Your task to perform on an android device: Open notification settings Image 0: 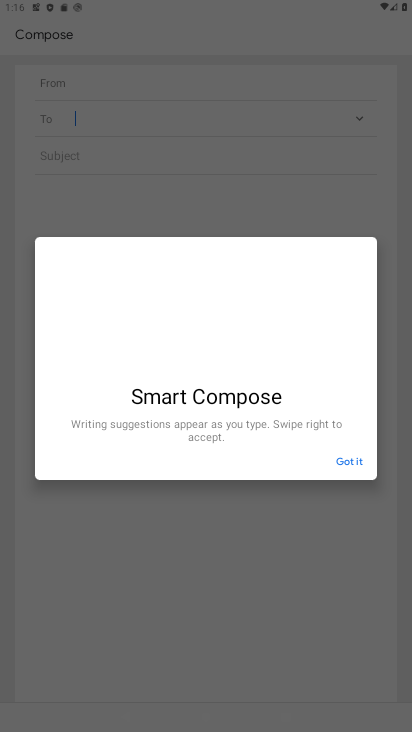
Step 0: drag from (317, 560) to (294, 61)
Your task to perform on an android device: Open notification settings Image 1: 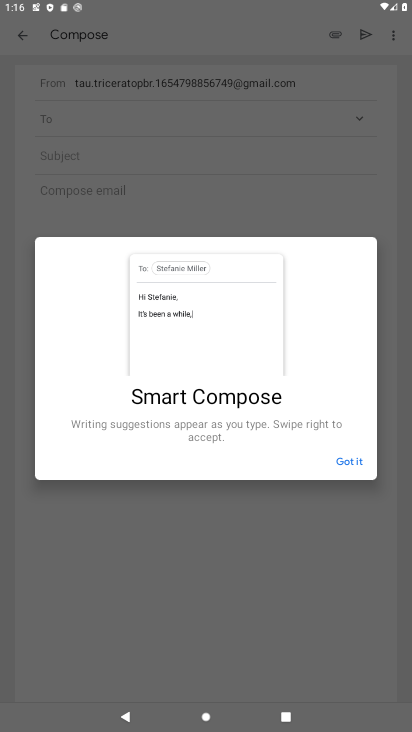
Step 1: press home button
Your task to perform on an android device: Open notification settings Image 2: 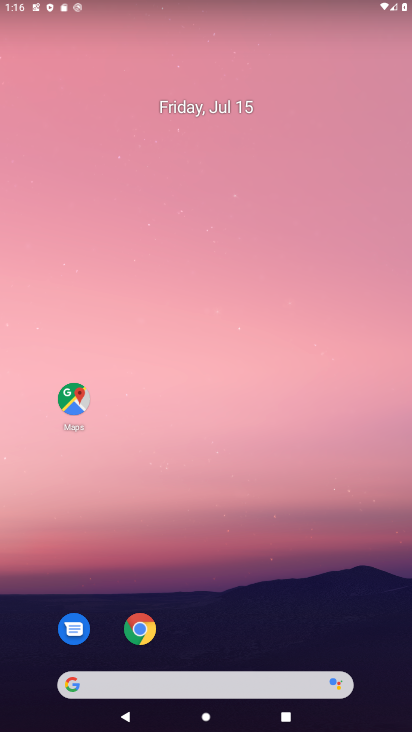
Step 2: drag from (293, 600) to (278, 108)
Your task to perform on an android device: Open notification settings Image 3: 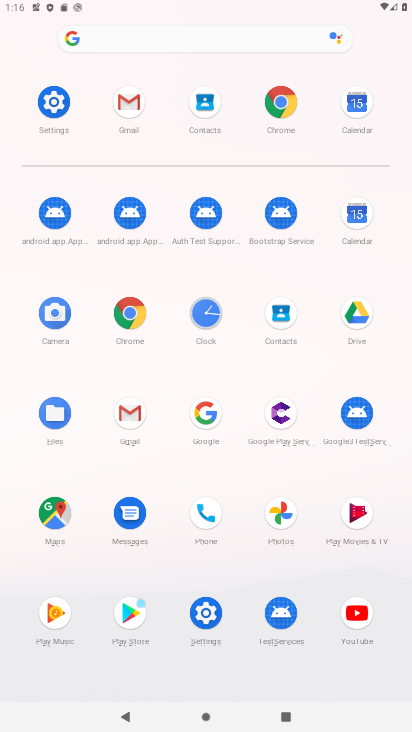
Step 3: click (49, 99)
Your task to perform on an android device: Open notification settings Image 4: 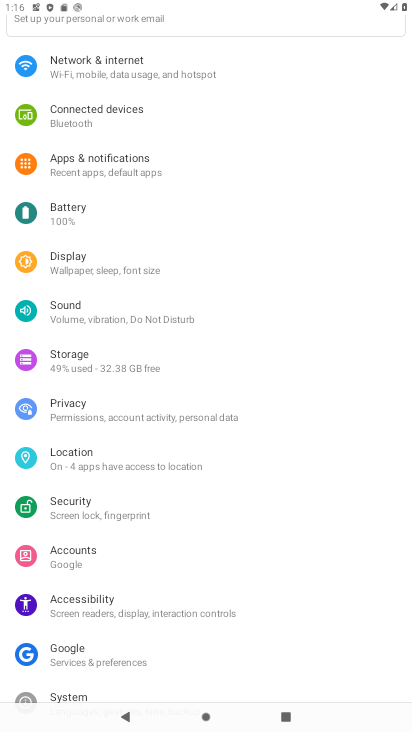
Step 4: click (137, 176)
Your task to perform on an android device: Open notification settings Image 5: 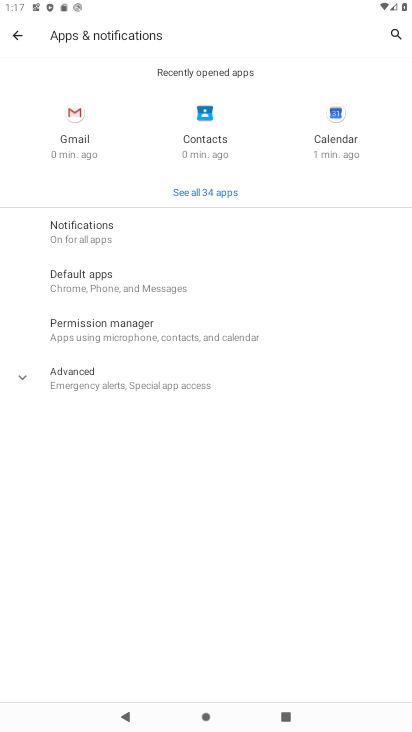
Step 5: task complete